Your task to perform on an android device: all mails in gmail Image 0: 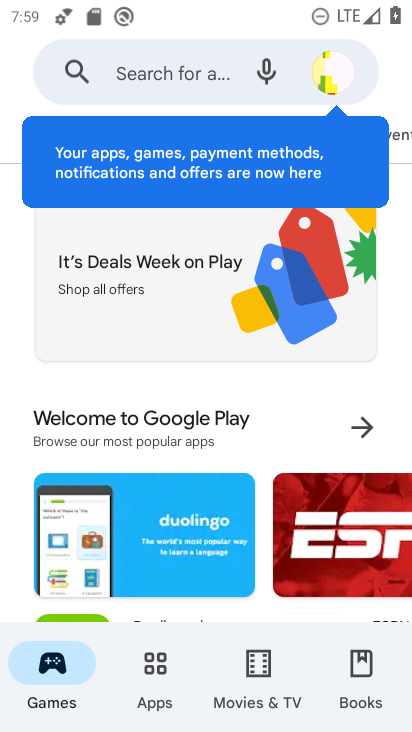
Step 0: press back button
Your task to perform on an android device: all mails in gmail Image 1: 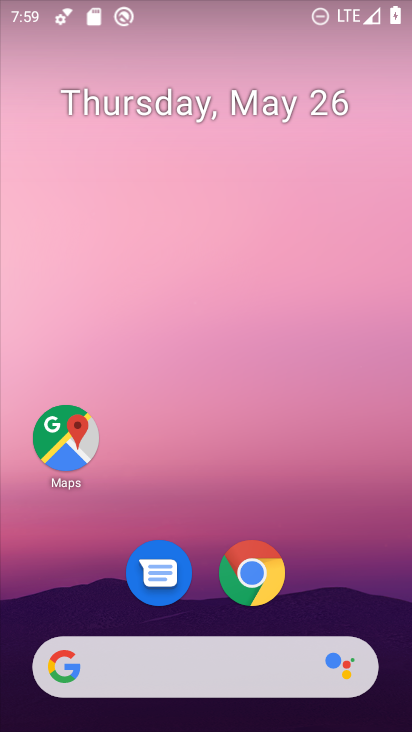
Step 1: drag from (334, 520) to (279, 5)
Your task to perform on an android device: all mails in gmail Image 2: 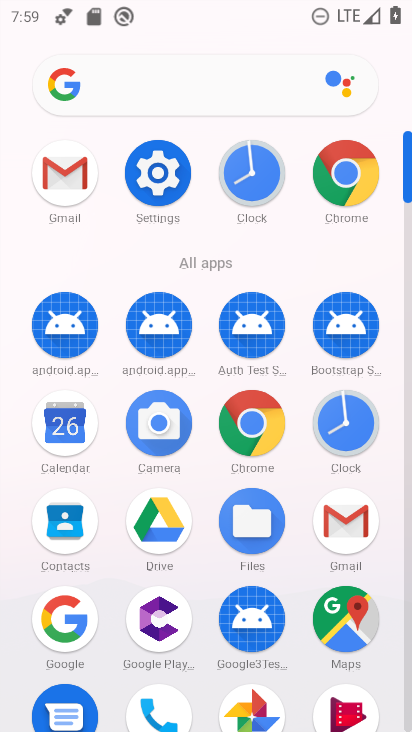
Step 2: drag from (16, 565) to (6, 216)
Your task to perform on an android device: all mails in gmail Image 3: 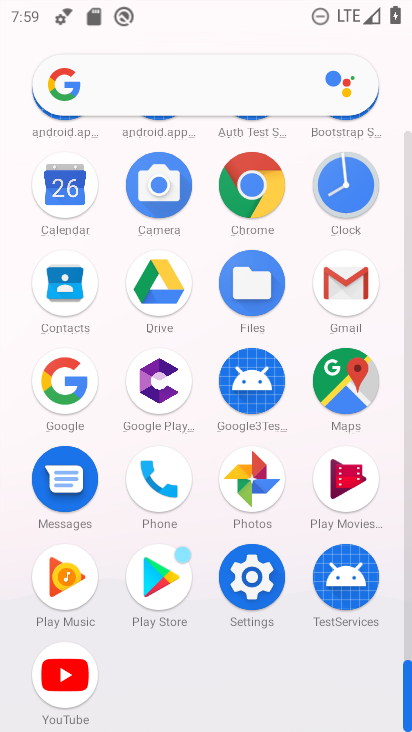
Step 3: click (347, 275)
Your task to perform on an android device: all mails in gmail Image 4: 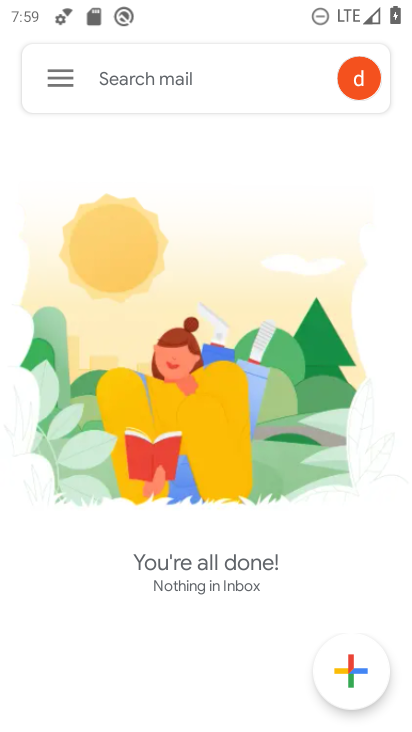
Step 4: click (42, 78)
Your task to perform on an android device: all mails in gmail Image 5: 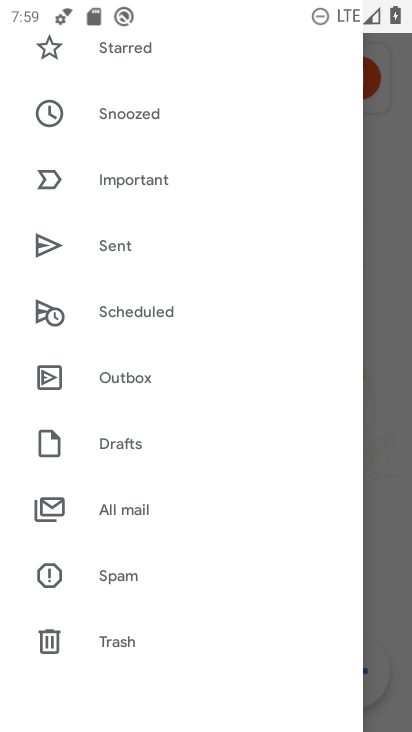
Step 5: click (136, 501)
Your task to perform on an android device: all mails in gmail Image 6: 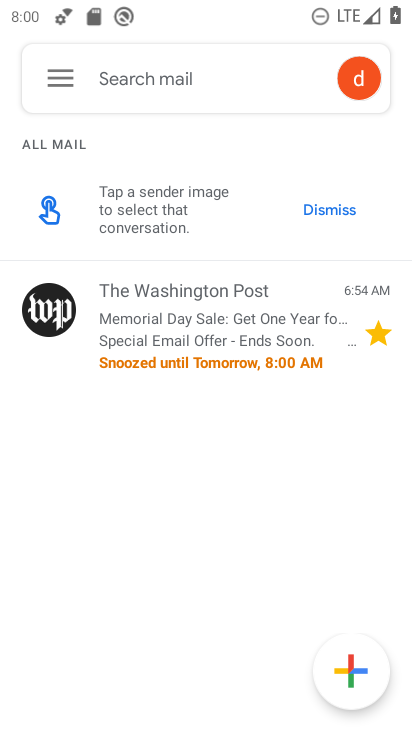
Step 6: task complete